Your task to perform on an android device: Open Google Chrome and open the bookmarks view Image 0: 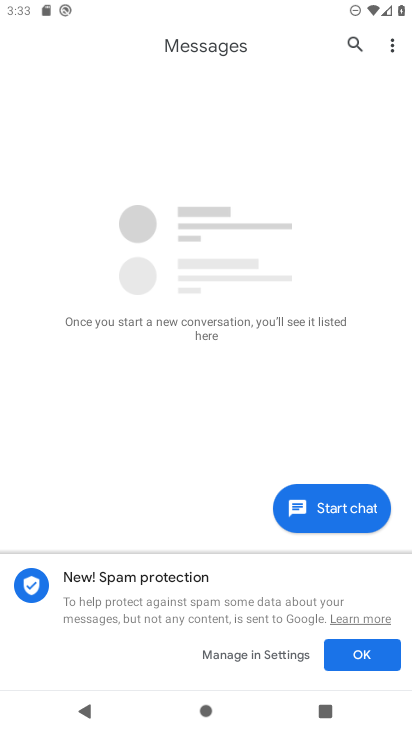
Step 0: press home button
Your task to perform on an android device: Open Google Chrome and open the bookmarks view Image 1: 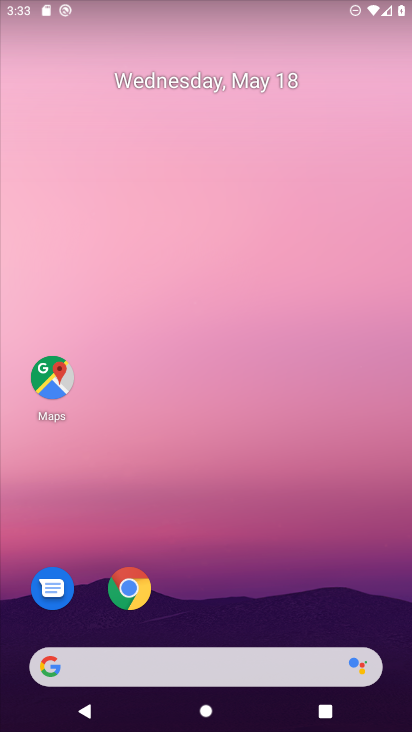
Step 1: click (138, 588)
Your task to perform on an android device: Open Google Chrome and open the bookmarks view Image 2: 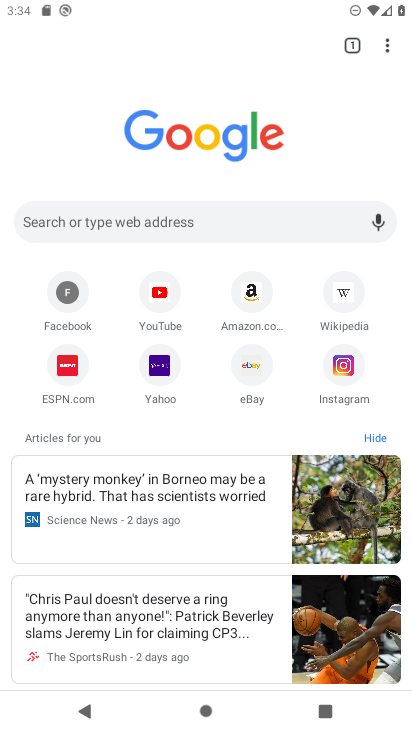
Step 2: click (379, 43)
Your task to perform on an android device: Open Google Chrome and open the bookmarks view Image 3: 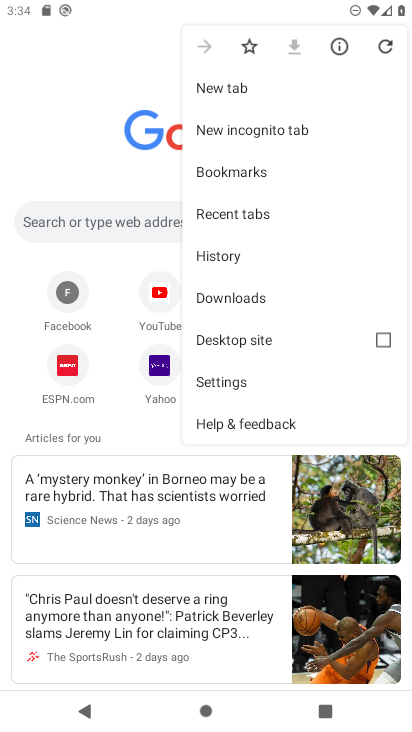
Step 3: click (239, 164)
Your task to perform on an android device: Open Google Chrome and open the bookmarks view Image 4: 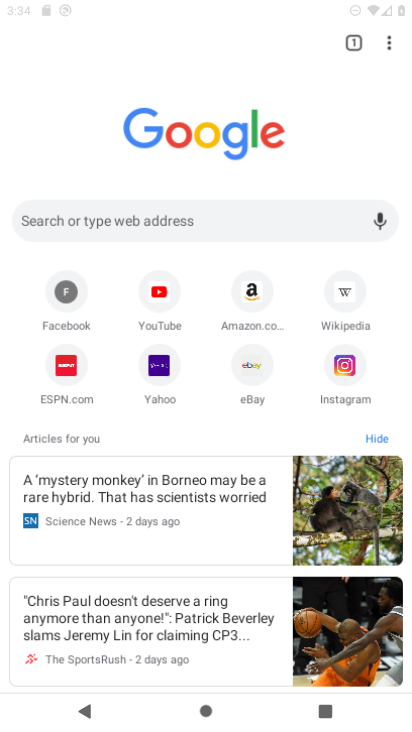
Step 4: task complete